Your task to perform on an android device: set default search engine in the chrome app Image 0: 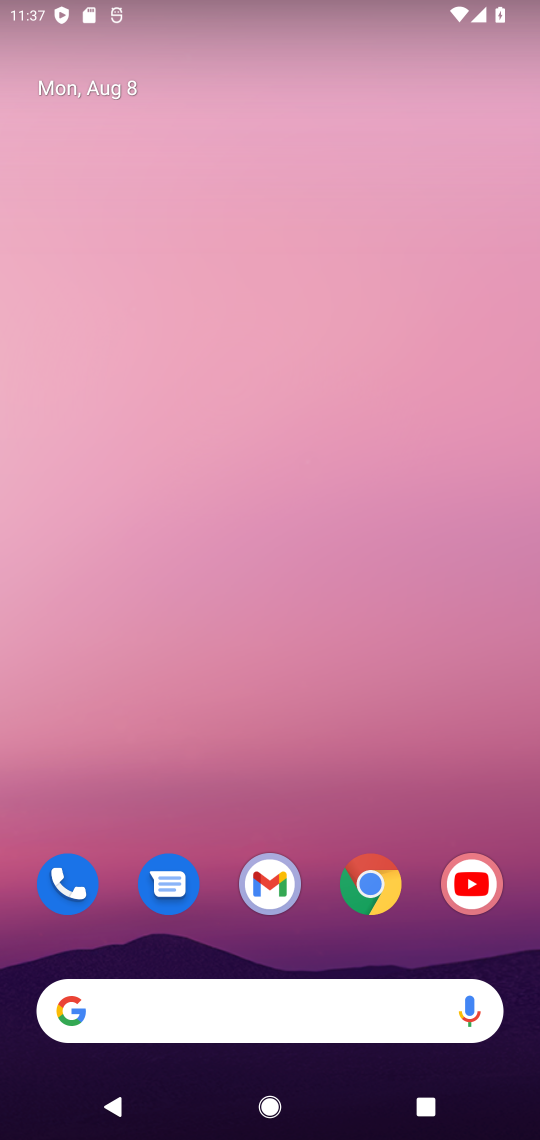
Step 0: click (388, 869)
Your task to perform on an android device: set default search engine in the chrome app Image 1: 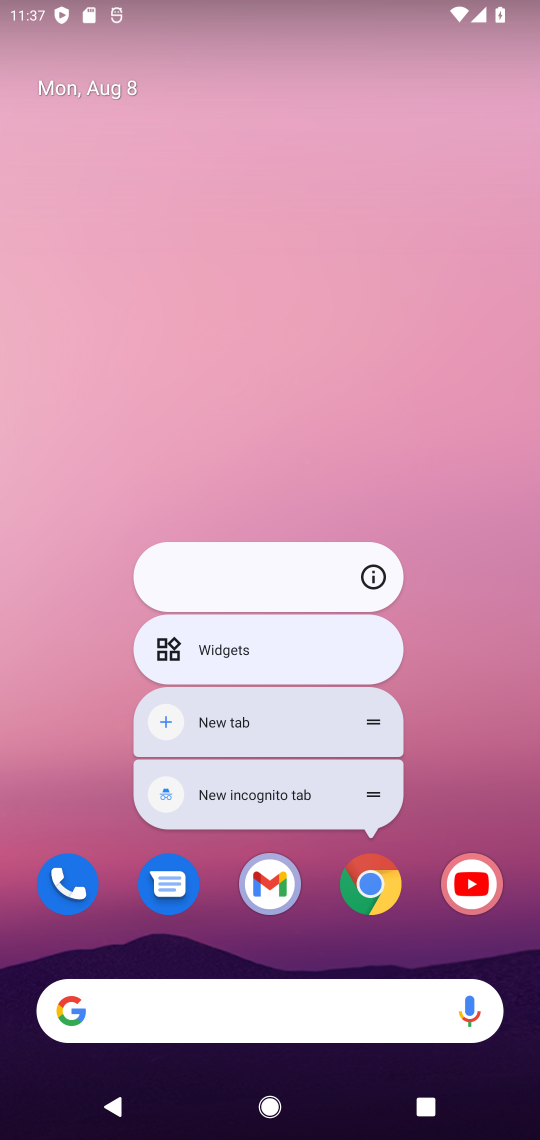
Step 1: click (356, 907)
Your task to perform on an android device: set default search engine in the chrome app Image 2: 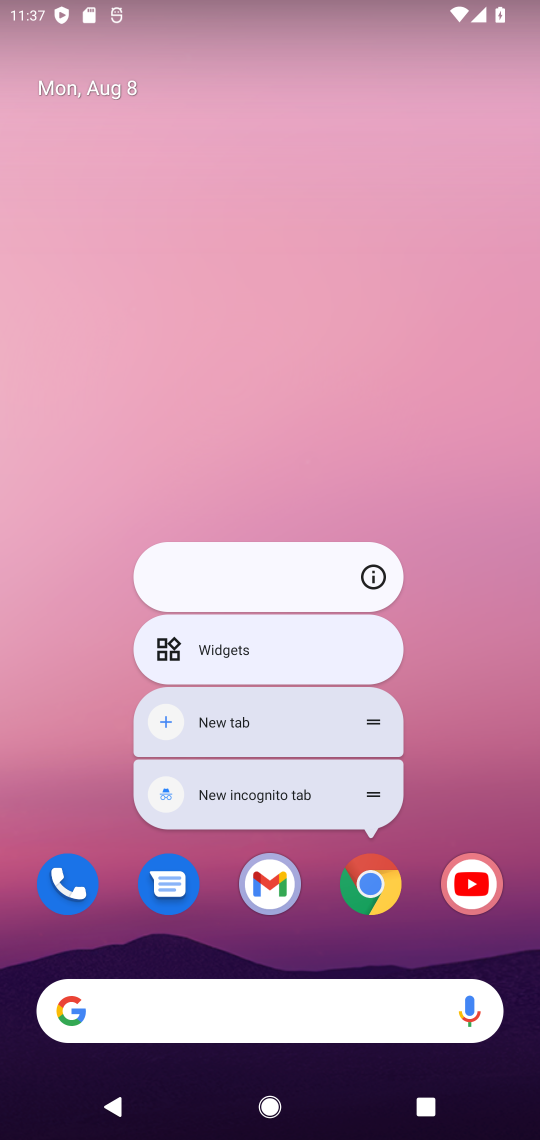
Step 2: click (356, 907)
Your task to perform on an android device: set default search engine in the chrome app Image 3: 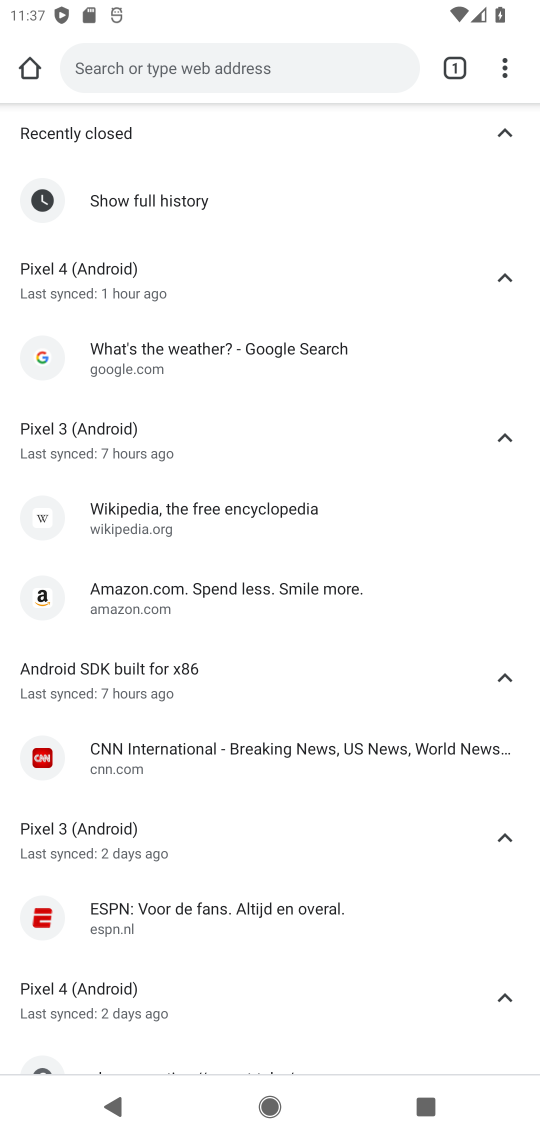
Step 3: click (506, 55)
Your task to perform on an android device: set default search engine in the chrome app Image 4: 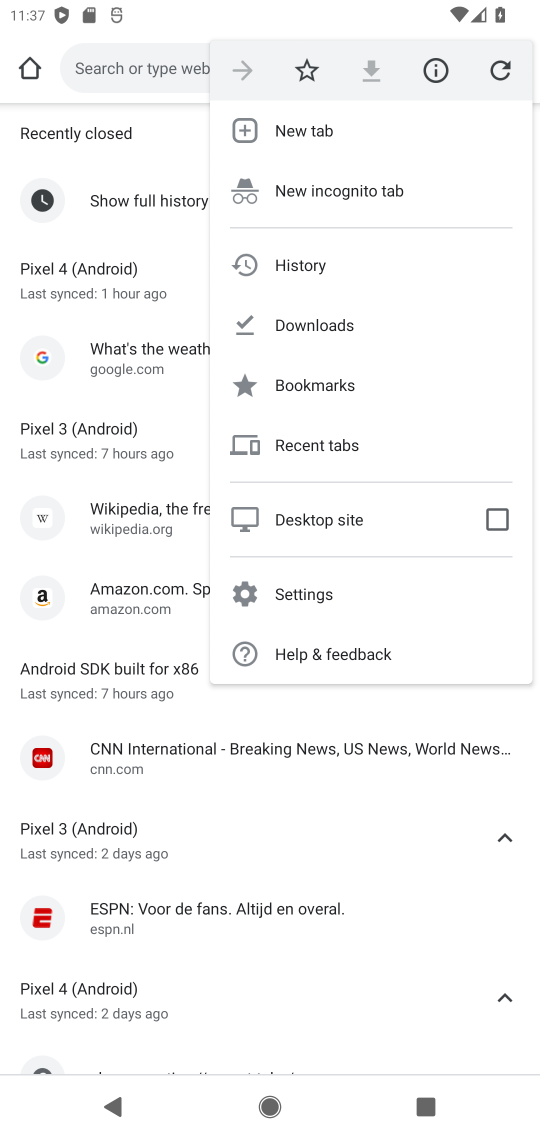
Step 4: click (330, 600)
Your task to perform on an android device: set default search engine in the chrome app Image 5: 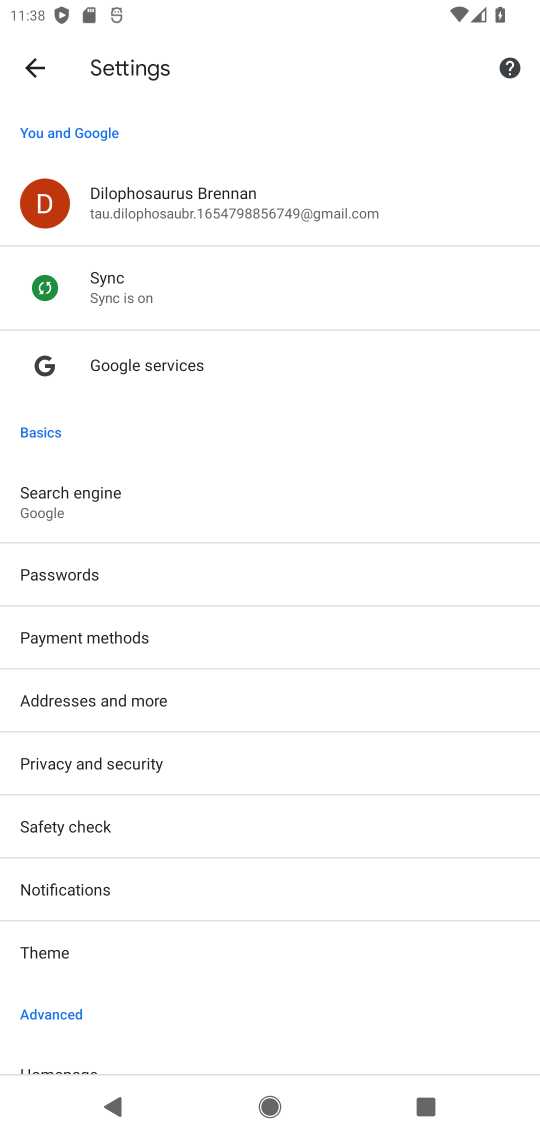
Step 5: click (96, 473)
Your task to perform on an android device: set default search engine in the chrome app Image 6: 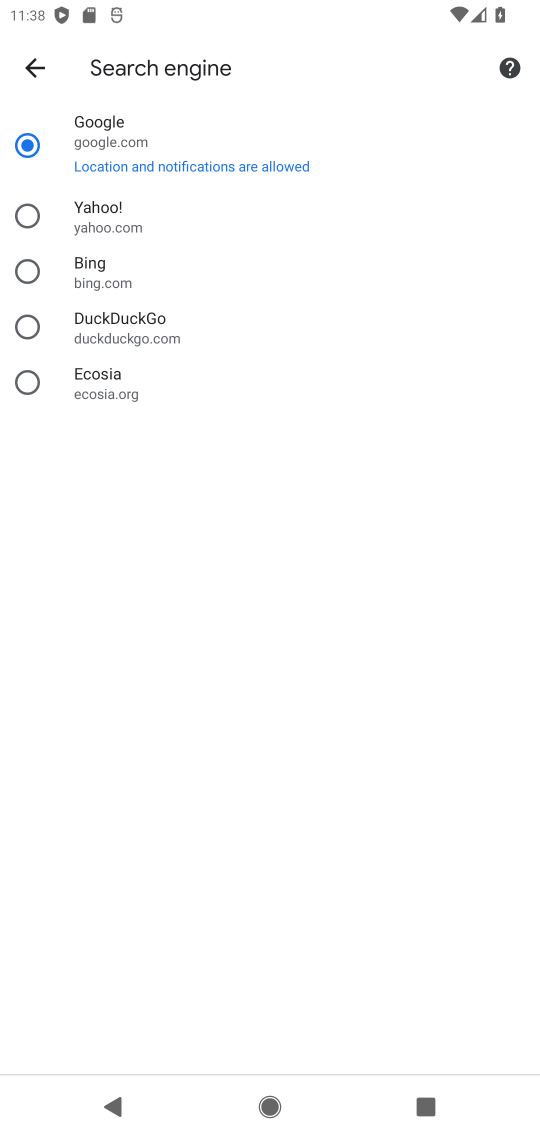
Step 6: task complete